Your task to perform on an android device: Go to wifi settings Image 0: 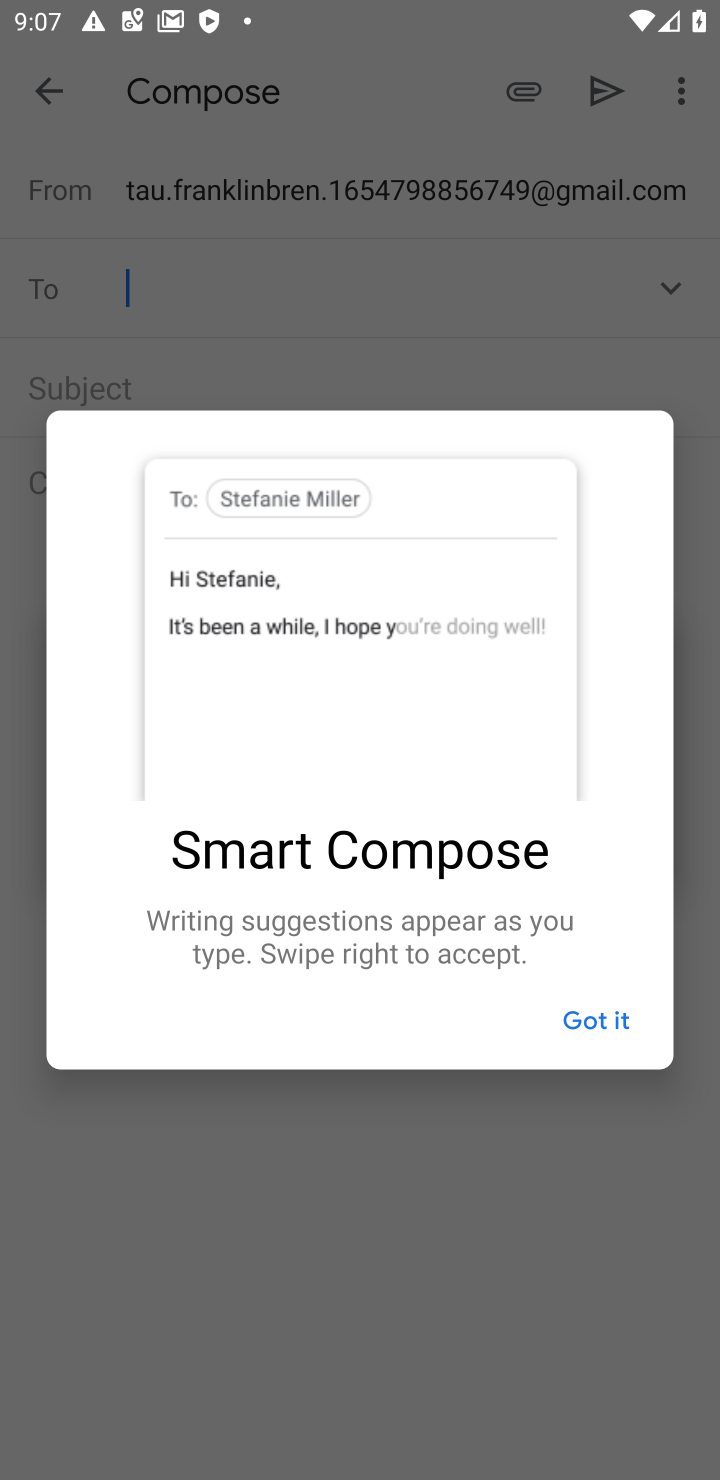
Step 0: press home button
Your task to perform on an android device: Go to wifi settings Image 1: 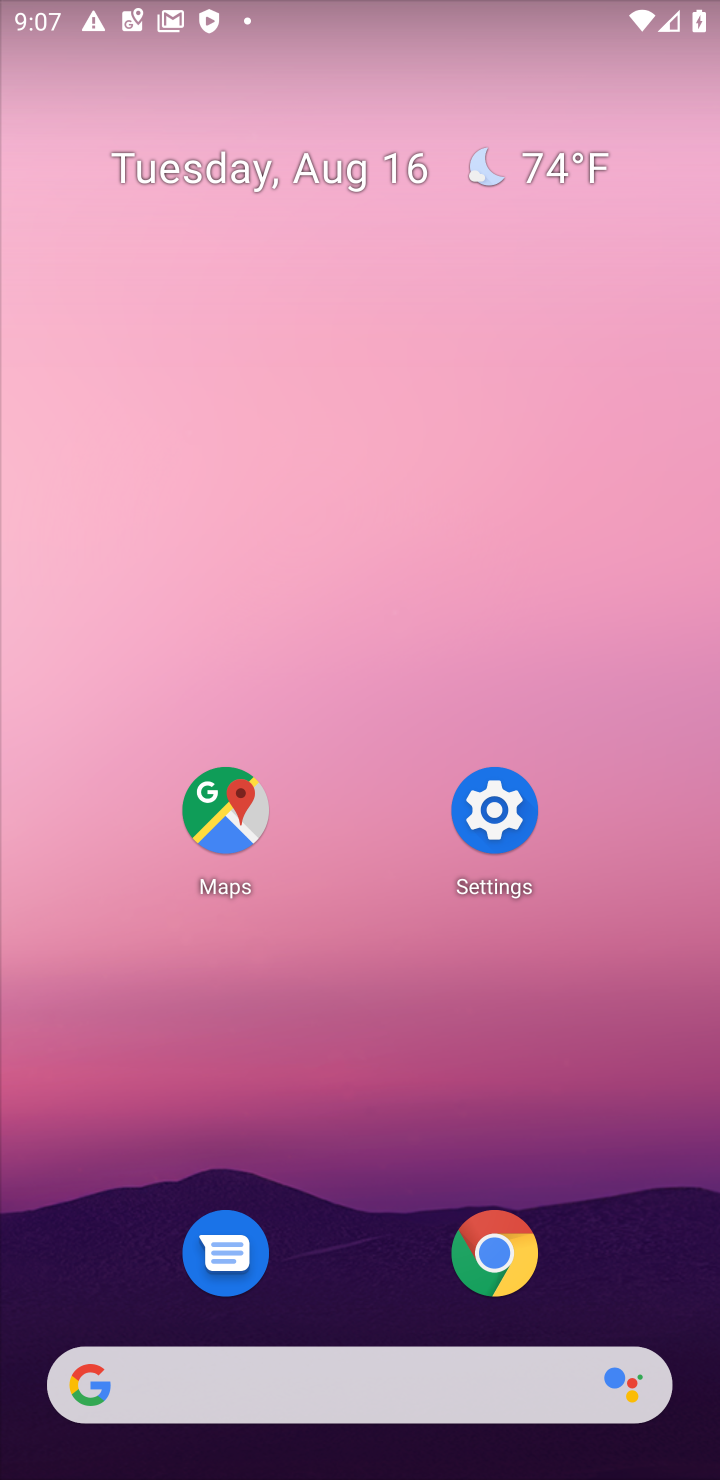
Step 1: click (494, 805)
Your task to perform on an android device: Go to wifi settings Image 2: 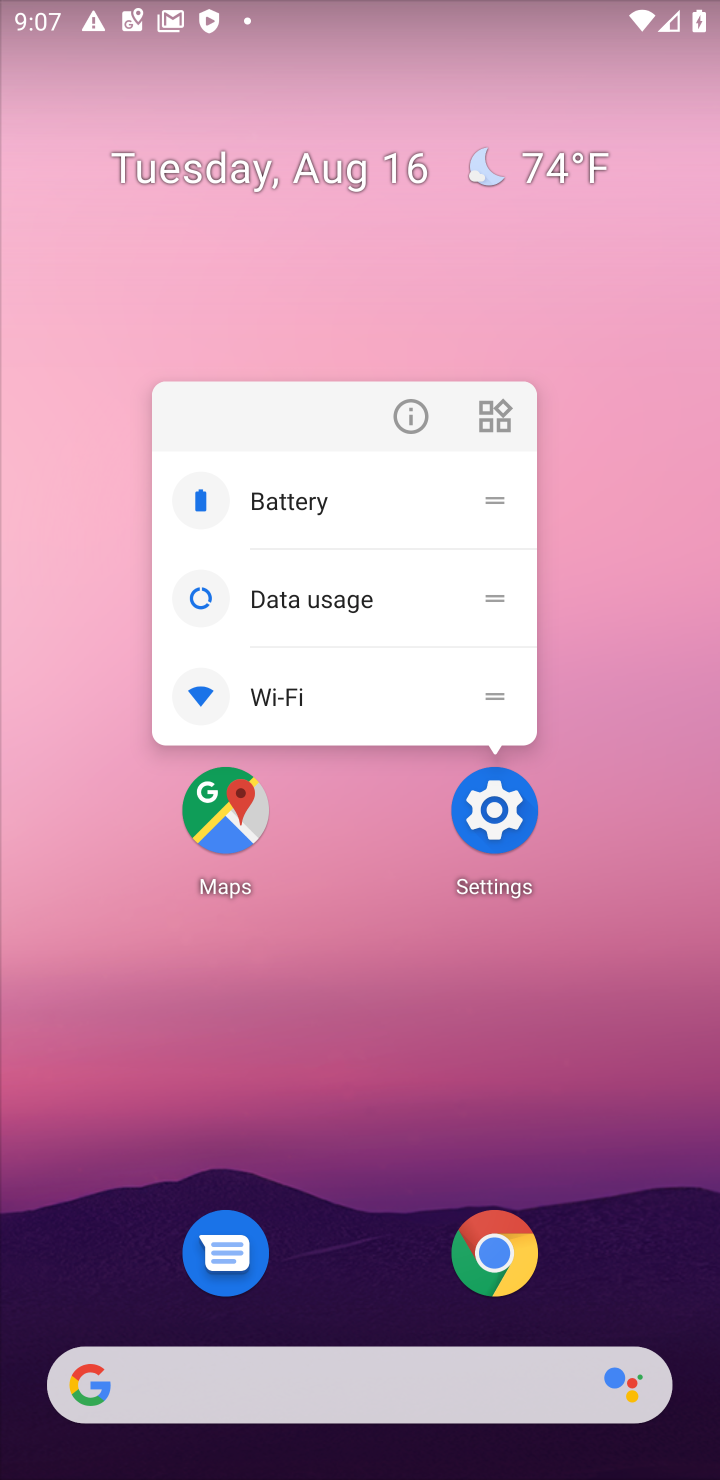
Step 2: click (494, 807)
Your task to perform on an android device: Go to wifi settings Image 3: 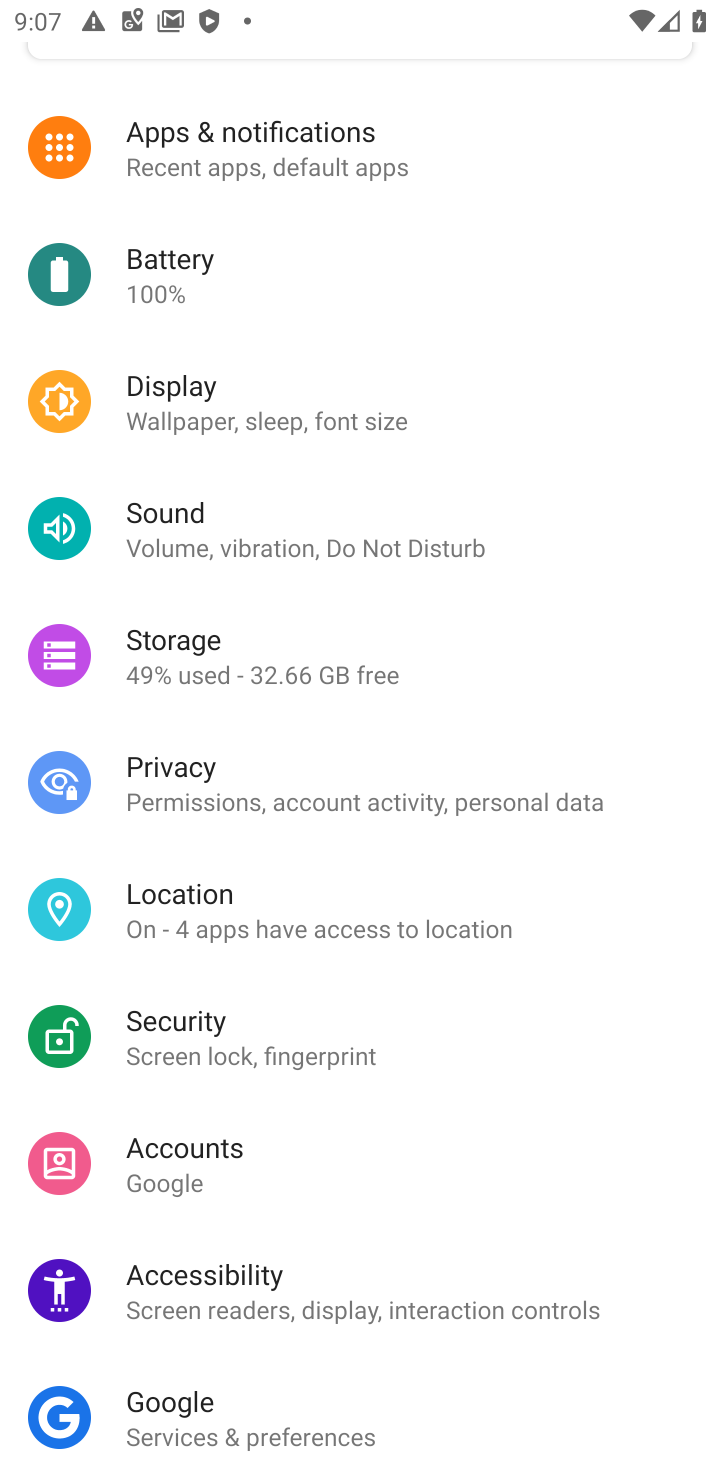
Step 3: drag from (573, 246) to (578, 1075)
Your task to perform on an android device: Go to wifi settings Image 4: 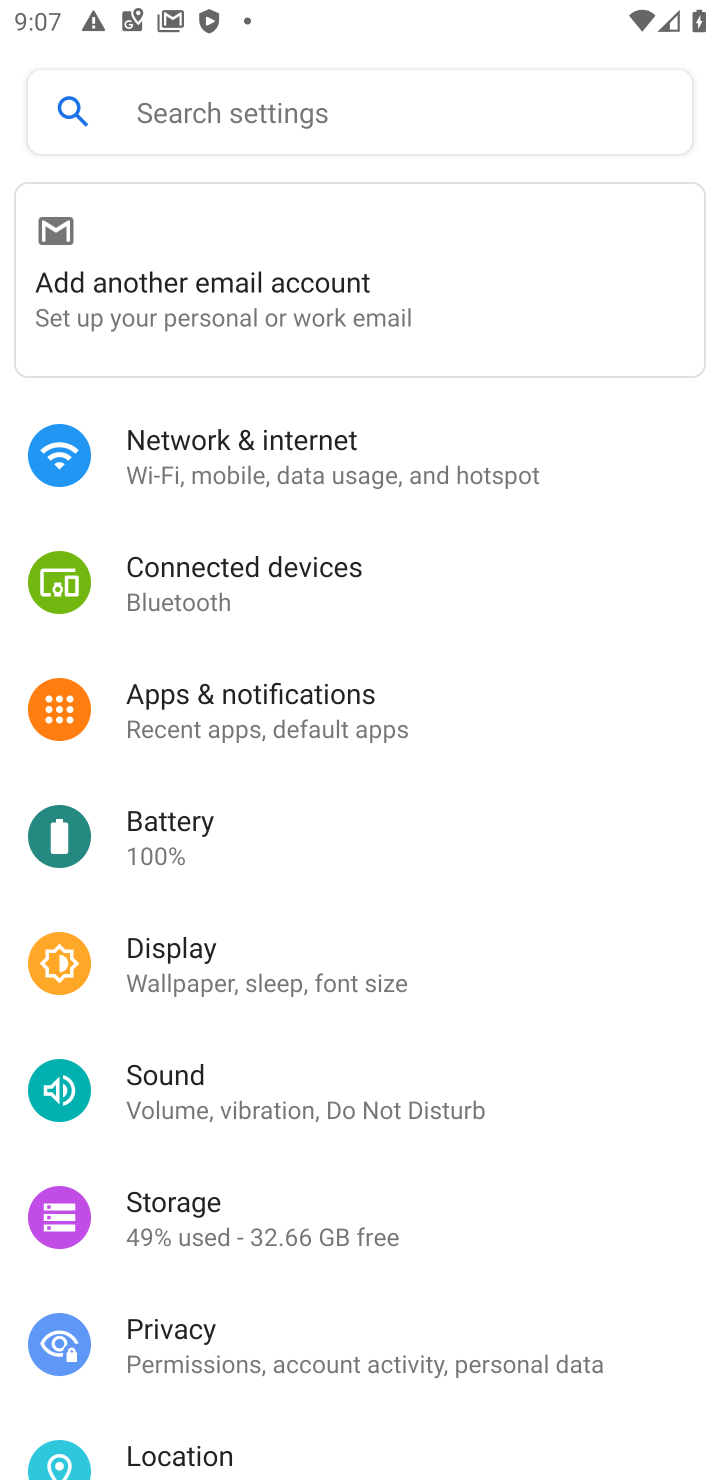
Step 4: click (267, 459)
Your task to perform on an android device: Go to wifi settings Image 5: 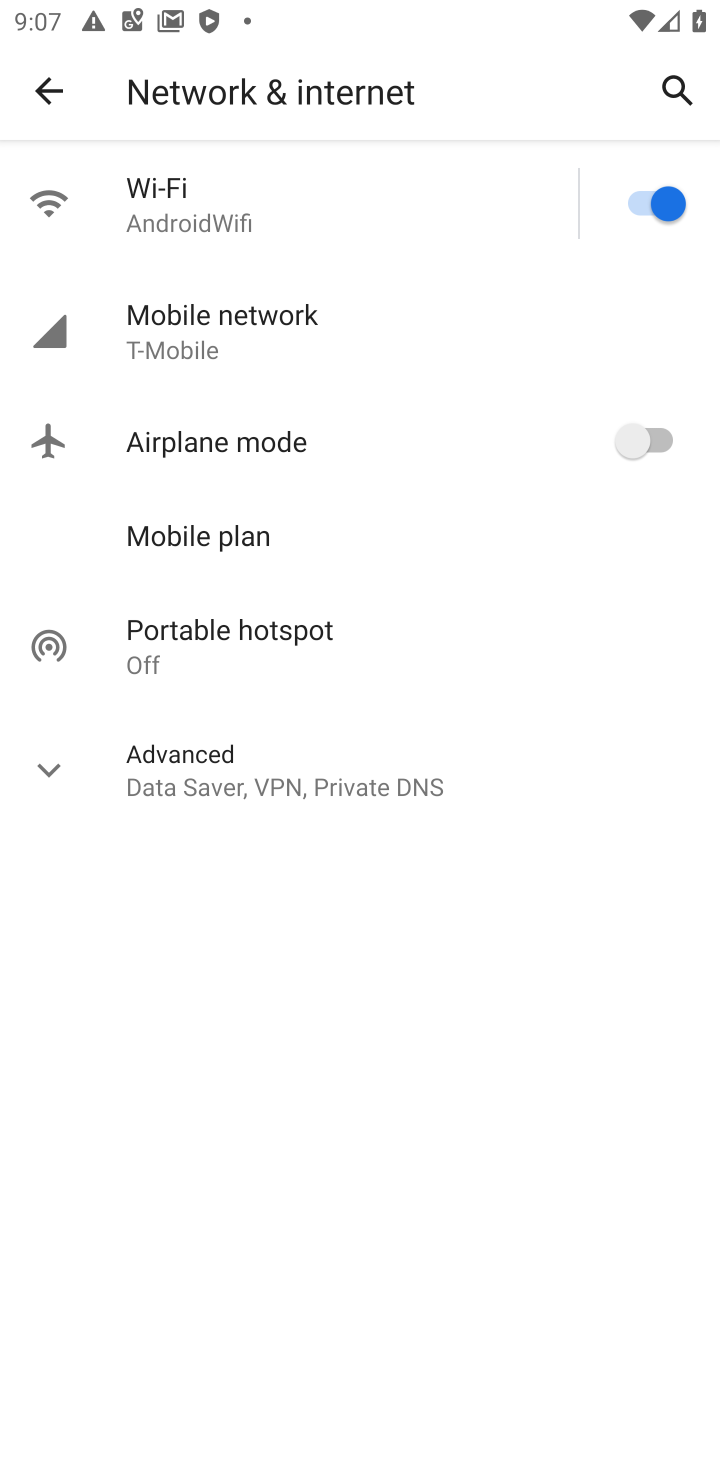
Step 5: click (171, 208)
Your task to perform on an android device: Go to wifi settings Image 6: 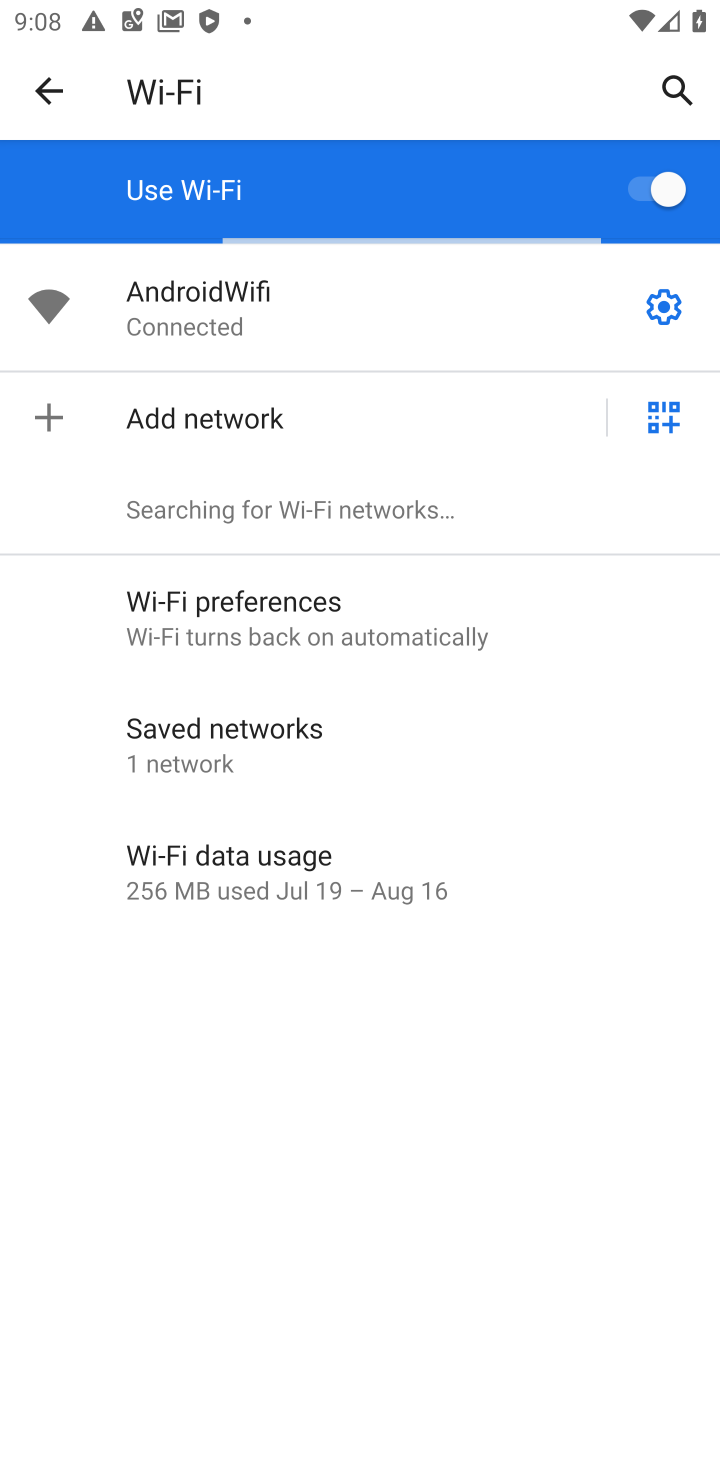
Step 6: task complete